Your task to perform on an android device: Search for hotels in New York Image 0: 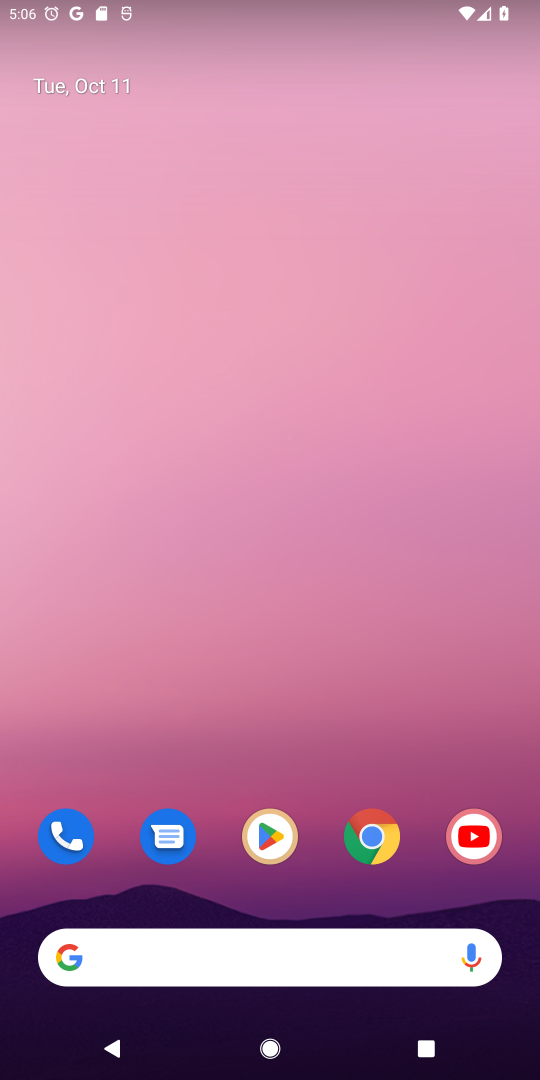
Step 0: click (231, 965)
Your task to perform on an android device: Search for hotels in New York Image 1: 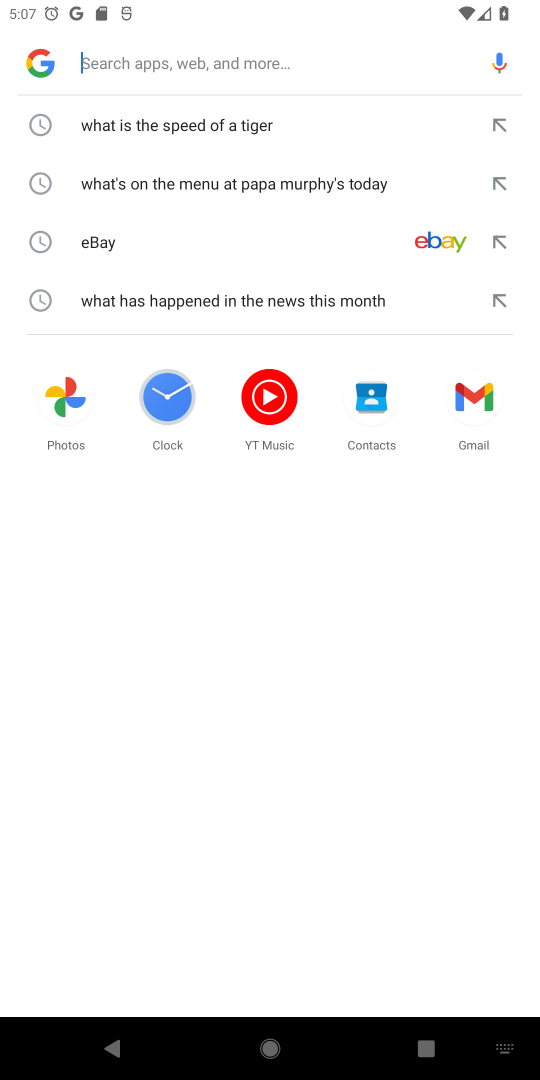
Step 1: type "Search for hotels in New York"
Your task to perform on an android device: Search for hotels in New York Image 2: 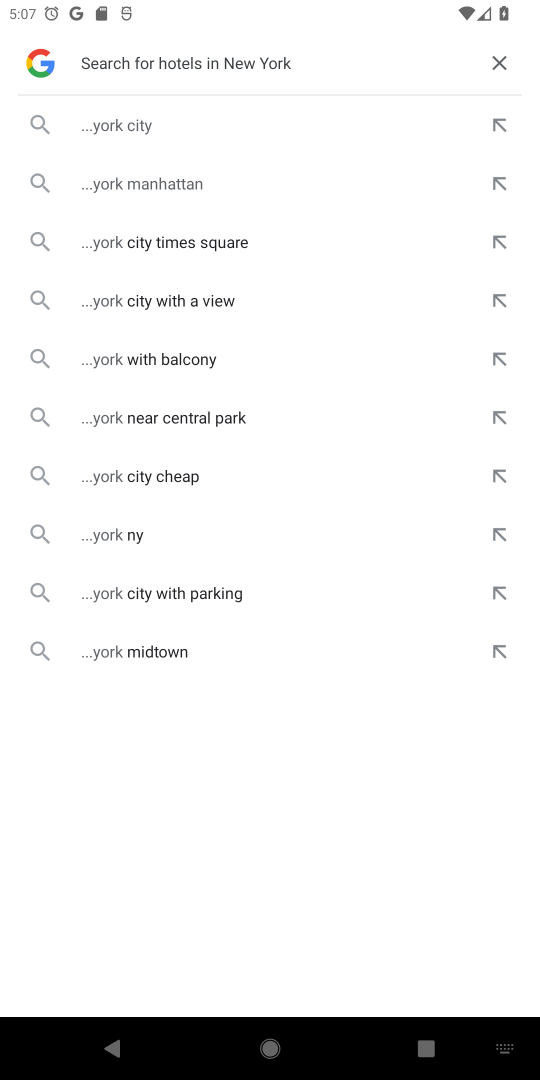
Step 2: click (186, 116)
Your task to perform on an android device: Search for hotels in New York Image 3: 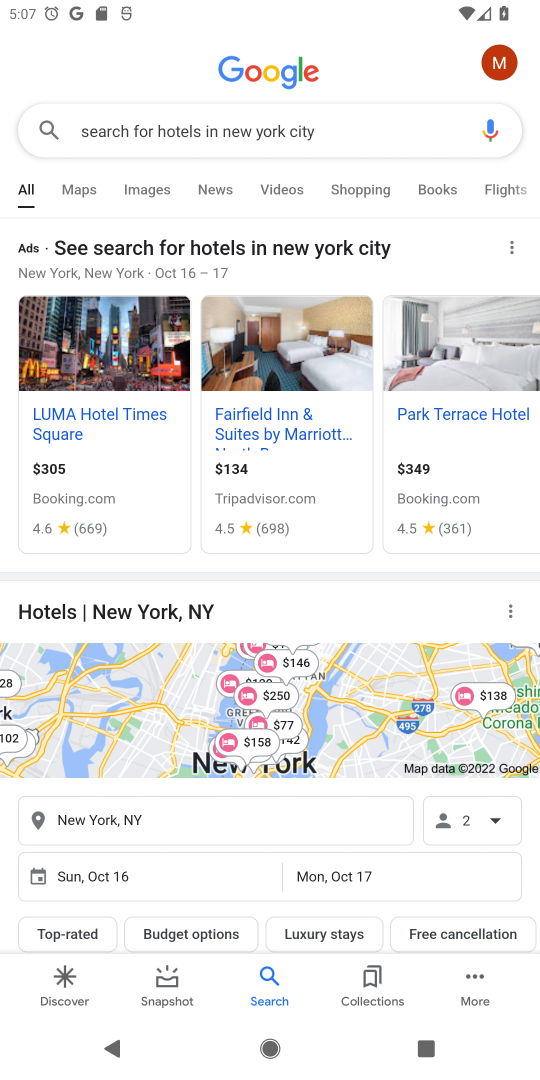
Step 3: task complete